Your task to perform on an android device: open chrome privacy settings Image 0: 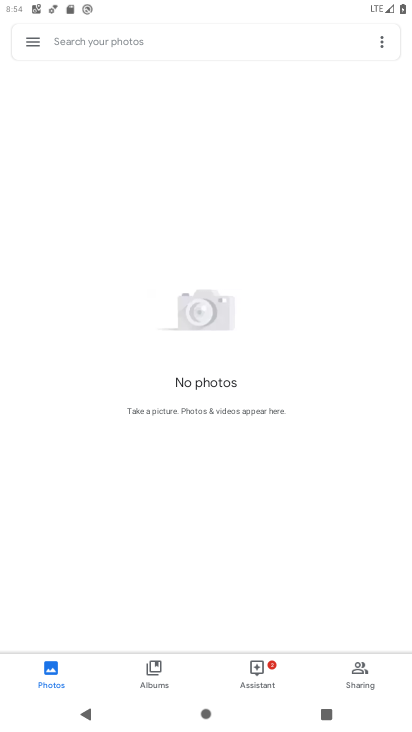
Step 0: press home button
Your task to perform on an android device: open chrome privacy settings Image 1: 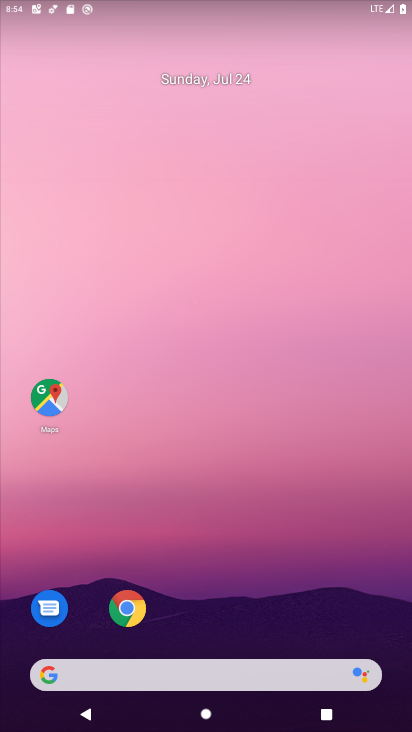
Step 1: click (124, 610)
Your task to perform on an android device: open chrome privacy settings Image 2: 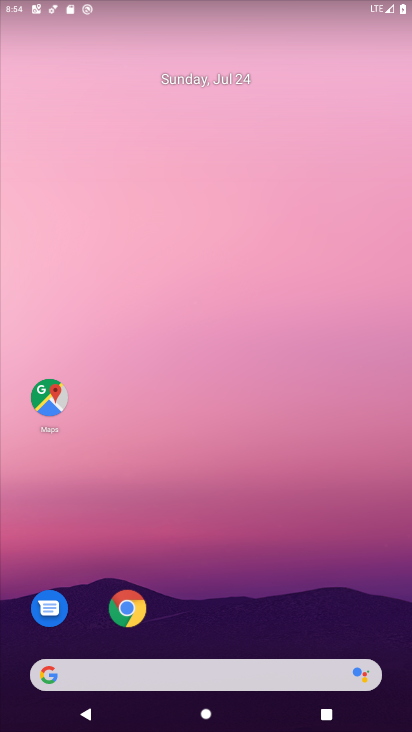
Step 2: click (124, 610)
Your task to perform on an android device: open chrome privacy settings Image 3: 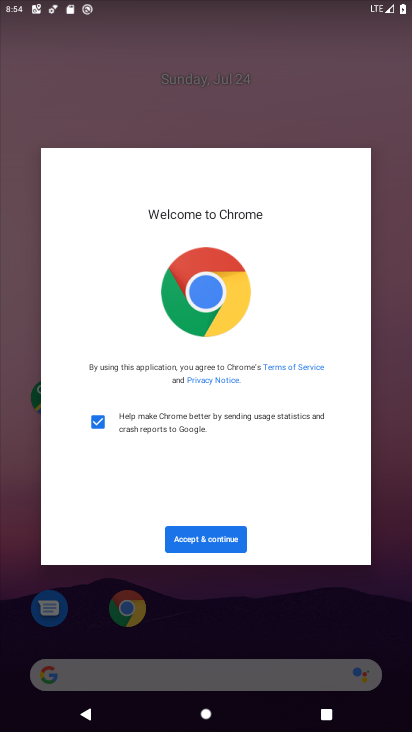
Step 3: click (207, 555)
Your task to perform on an android device: open chrome privacy settings Image 4: 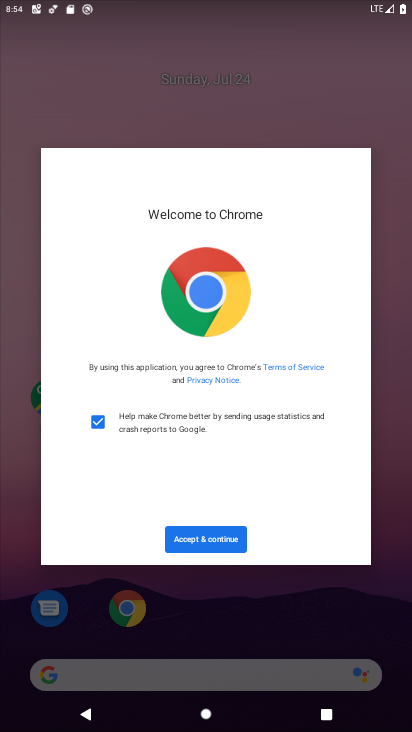
Step 4: click (229, 548)
Your task to perform on an android device: open chrome privacy settings Image 5: 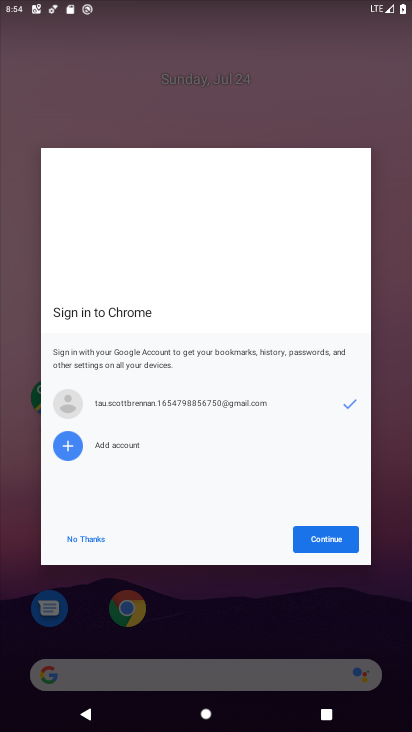
Step 5: click (313, 539)
Your task to perform on an android device: open chrome privacy settings Image 6: 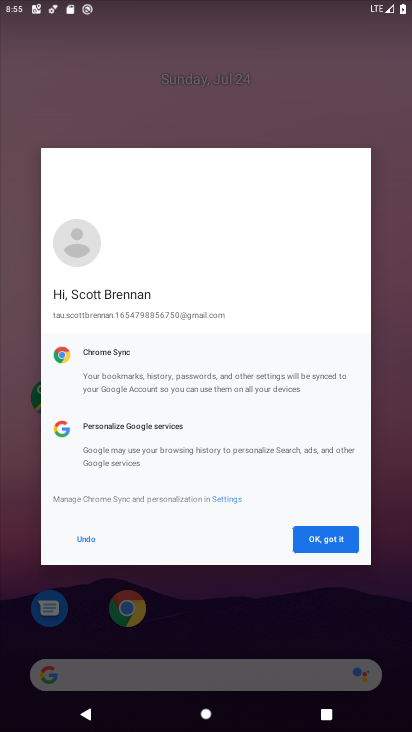
Step 6: click (313, 539)
Your task to perform on an android device: open chrome privacy settings Image 7: 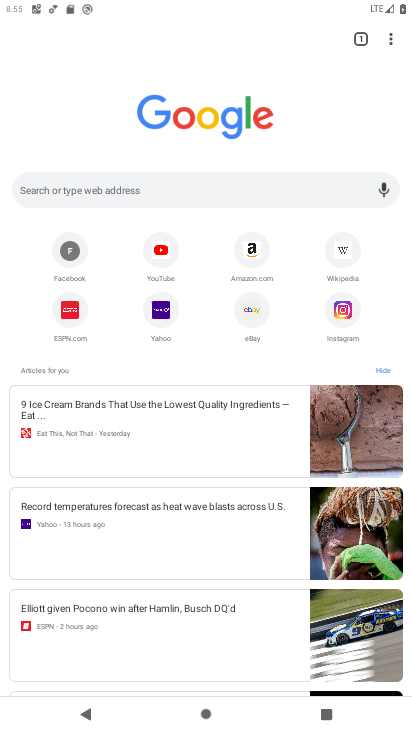
Step 7: click (393, 46)
Your task to perform on an android device: open chrome privacy settings Image 8: 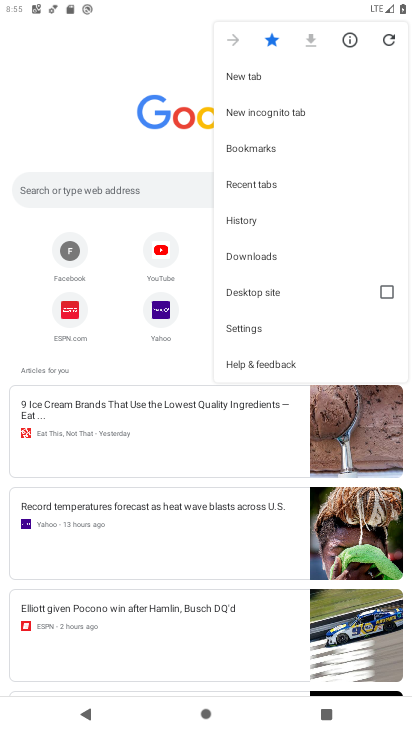
Step 8: click (288, 324)
Your task to perform on an android device: open chrome privacy settings Image 9: 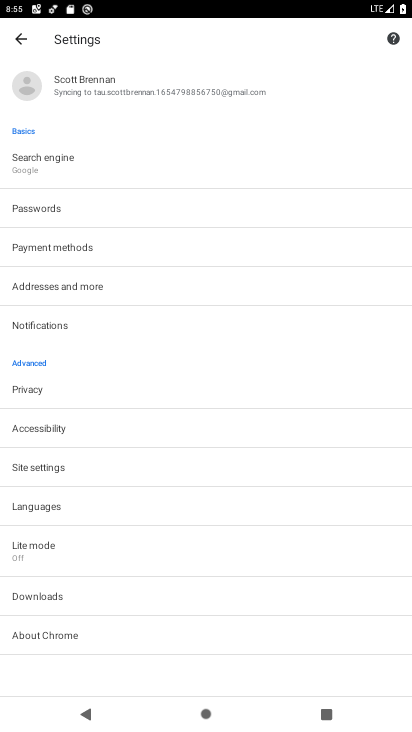
Step 9: click (33, 396)
Your task to perform on an android device: open chrome privacy settings Image 10: 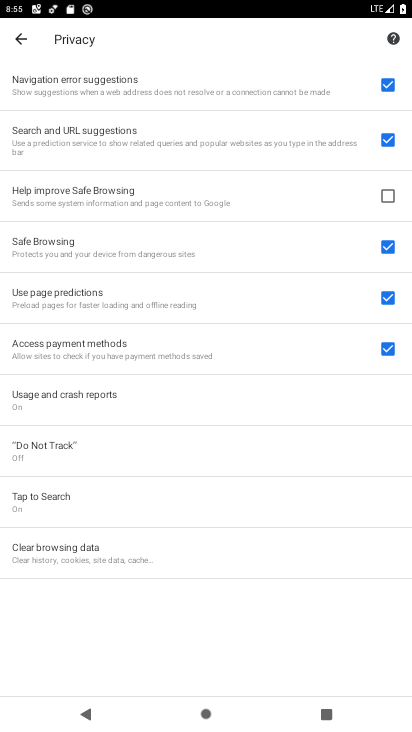
Step 10: task complete